Your task to perform on an android device: star an email in the gmail app Image 0: 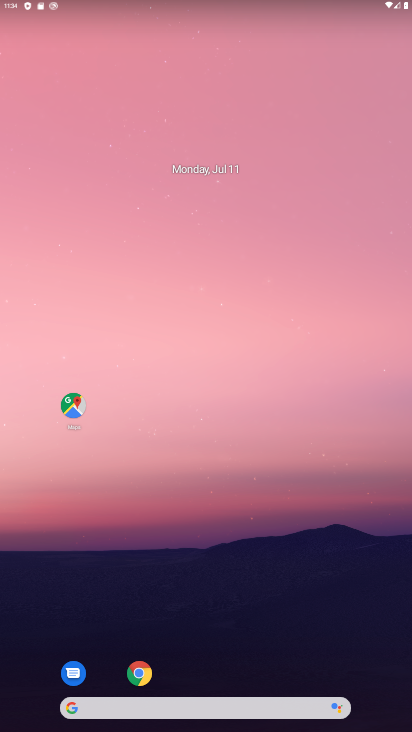
Step 0: drag from (215, 654) to (221, 138)
Your task to perform on an android device: star an email in the gmail app Image 1: 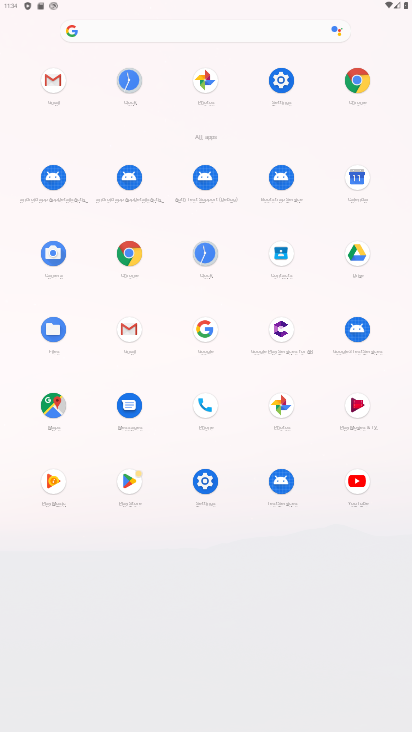
Step 1: click (126, 325)
Your task to perform on an android device: star an email in the gmail app Image 2: 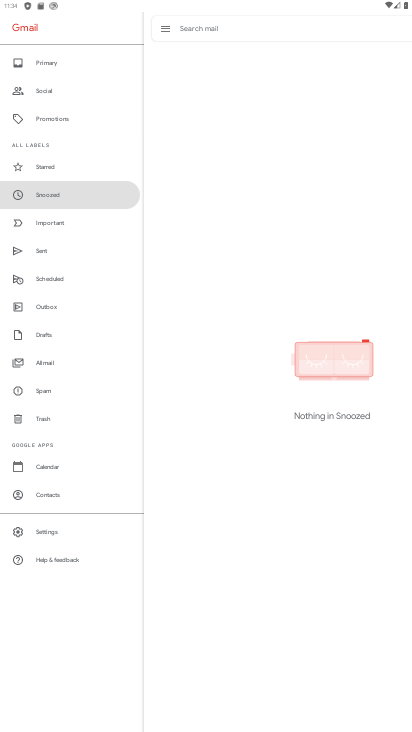
Step 2: task complete